Your task to perform on an android device: Go to Google maps Image 0: 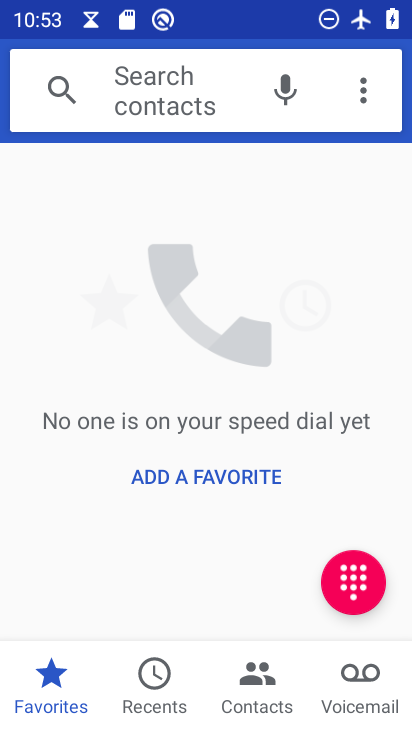
Step 0: press home button
Your task to perform on an android device: Go to Google maps Image 1: 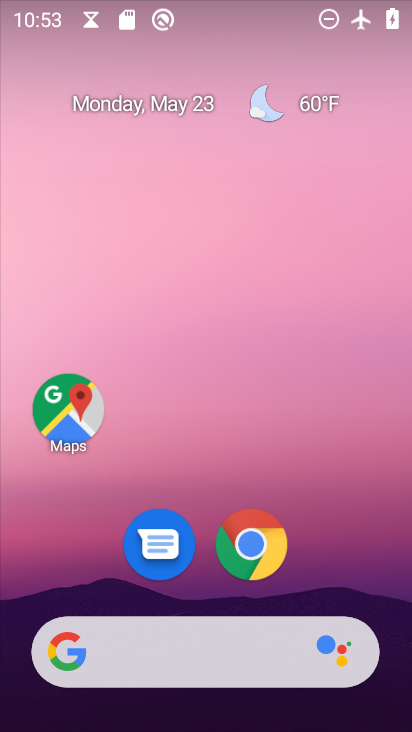
Step 1: click (81, 428)
Your task to perform on an android device: Go to Google maps Image 2: 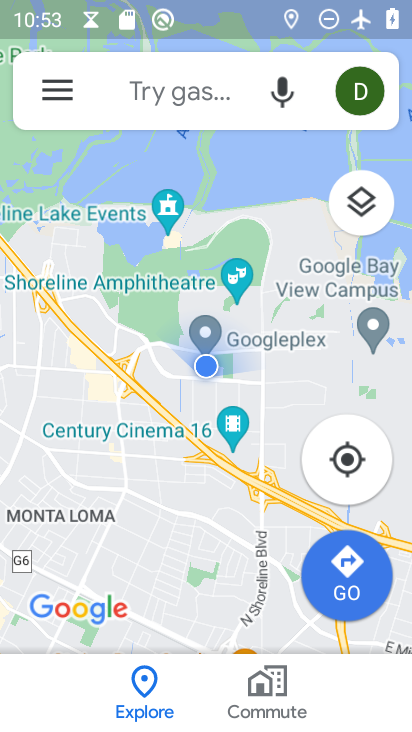
Step 2: drag from (275, 268) to (315, 345)
Your task to perform on an android device: Go to Google maps Image 3: 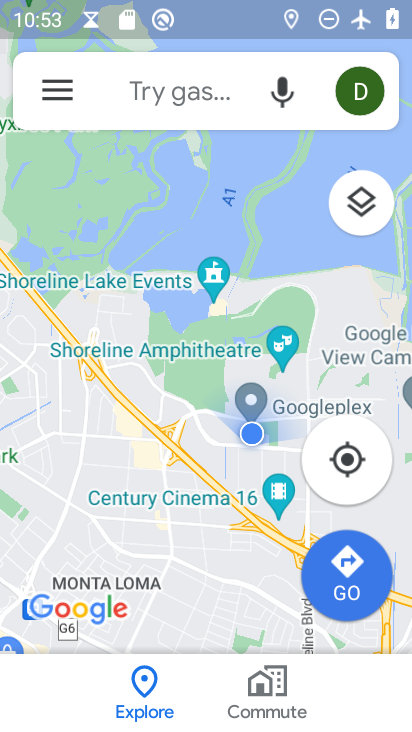
Step 3: click (314, 345)
Your task to perform on an android device: Go to Google maps Image 4: 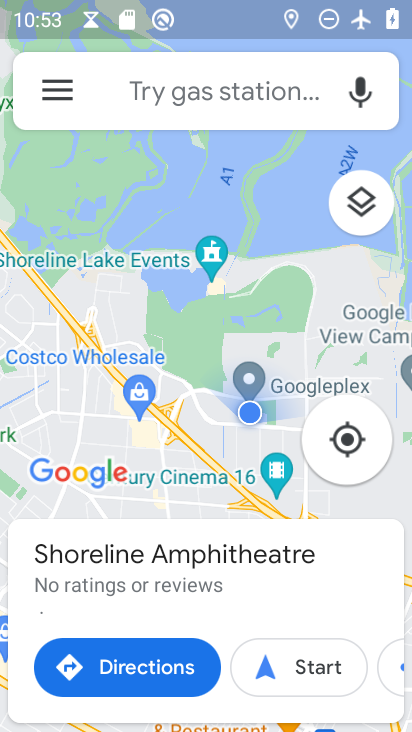
Step 4: task complete